Your task to perform on an android device: read, delete, or share a saved page in the chrome app Image 0: 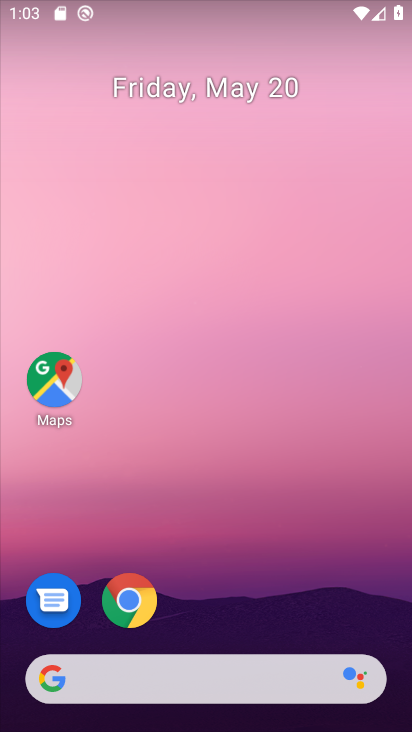
Step 0: click (136, 601)
Your task to perform on an android device: read, delete, or share a saved page in the chrome app Image 1: 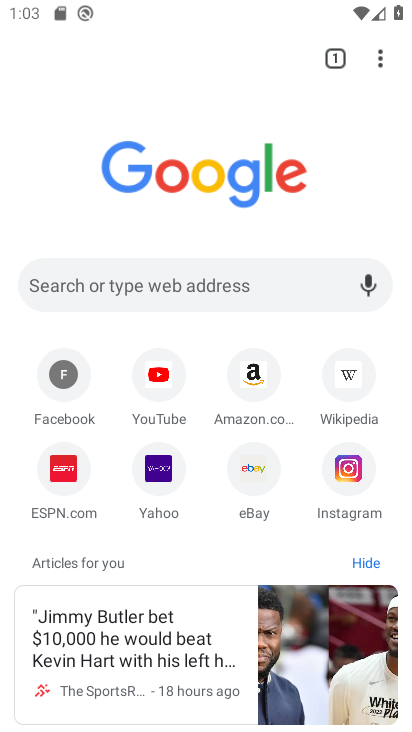
Step 1: click (380, 57)
Your task to perform on an android device: read, delete, or share a saved page in the chrome app Image 2: 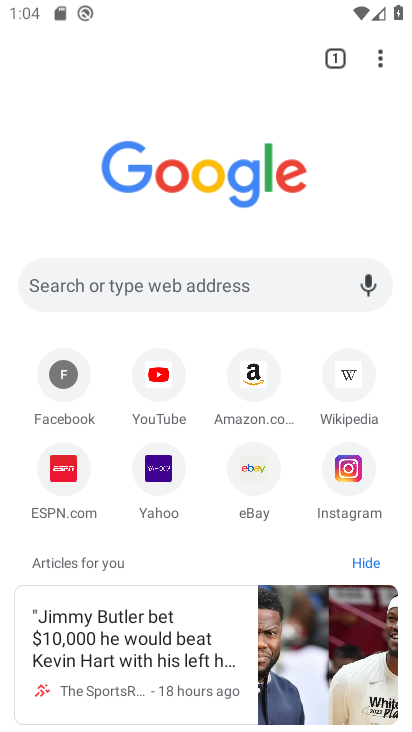
Step 2: click (381, 54)
Your task to perform on an android device: read, delete, or share a saved page in the chrome app Image 3: 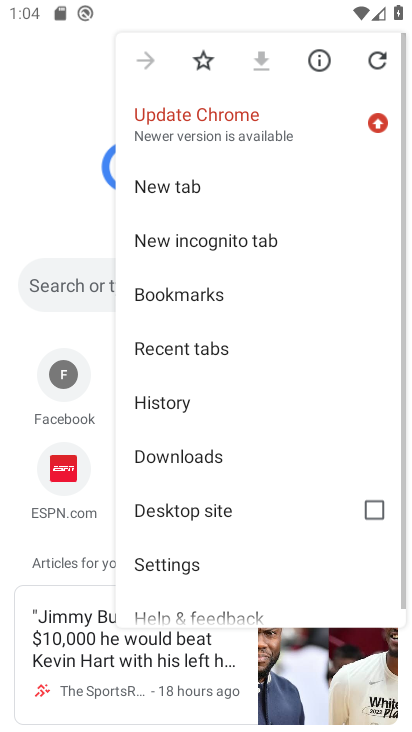
Step 3: click (205, 458)
Your task to perform on an android device: read, delete, or share a saved page in the chrome app Image 4: 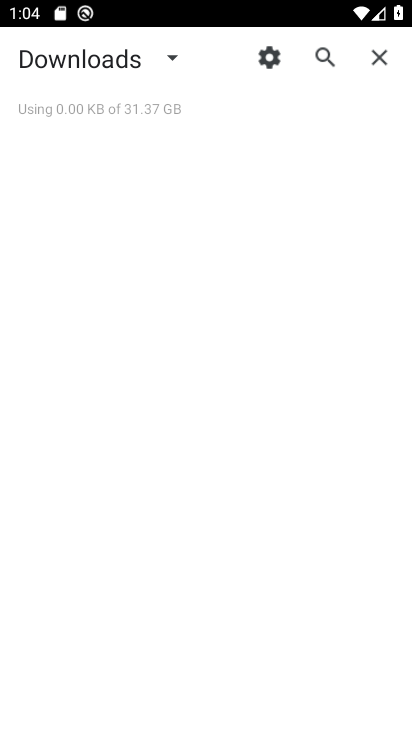
Step 4: click (141, 53)
Your task to perform on an android device: read, delete, or share a saved page in the chrome app Image 5: 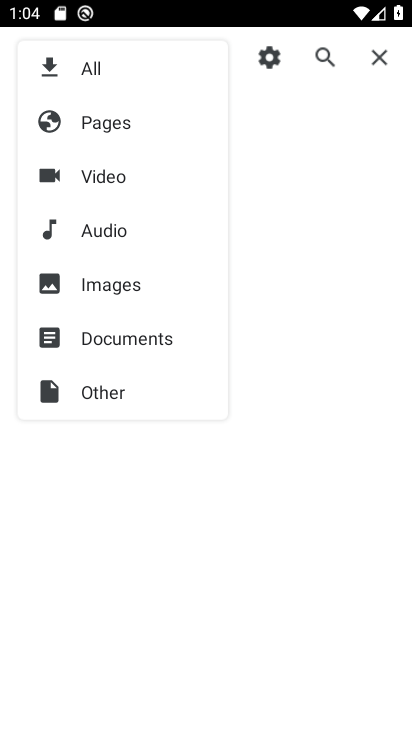
Step 5: click (109, 123)
Your task to perform on an android device: read, delete, or share a saved page in the chrome app Image 6: 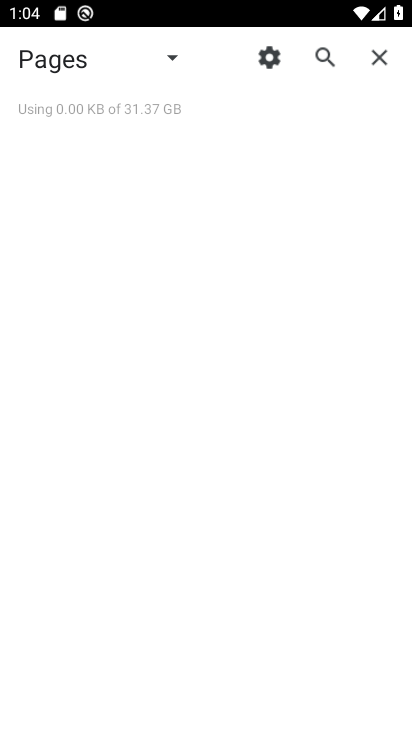
Step 6: task complete